Your task to perform on an android device: Open calendar and show me the second week of next month Image 0: 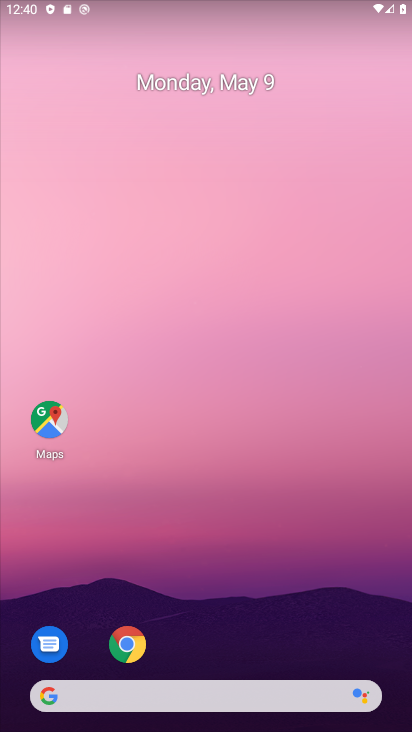
Step 0: drag from (332, 593) to (210, 30)
Your task to perform on an android device: Open calendar and show me the second week of next month Image 1: 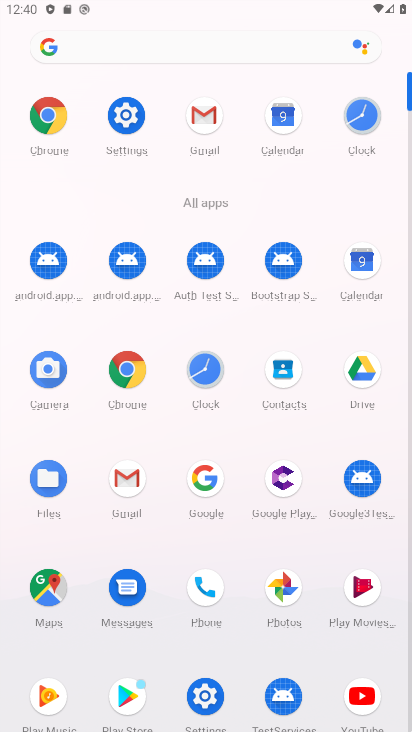
Step 1: drag from (161, 589) to (187, 216)
Your task to perform on an android device: Open calendar and show me the second week of next month Image 2: 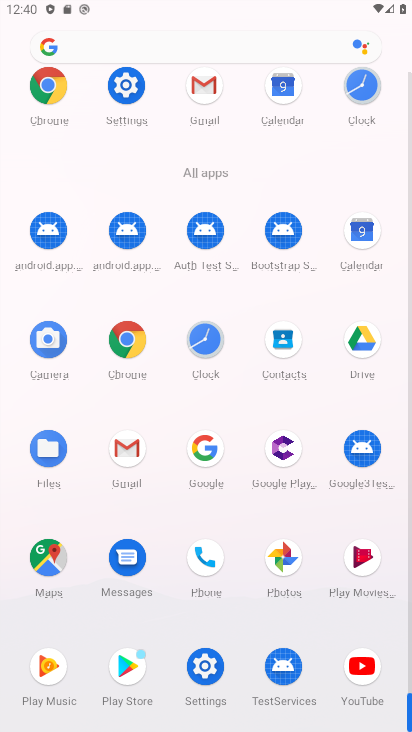
Step 2: click (350, 270)
Your task to perform on an android device: Open calendar and show me the second week of next month Image 3: 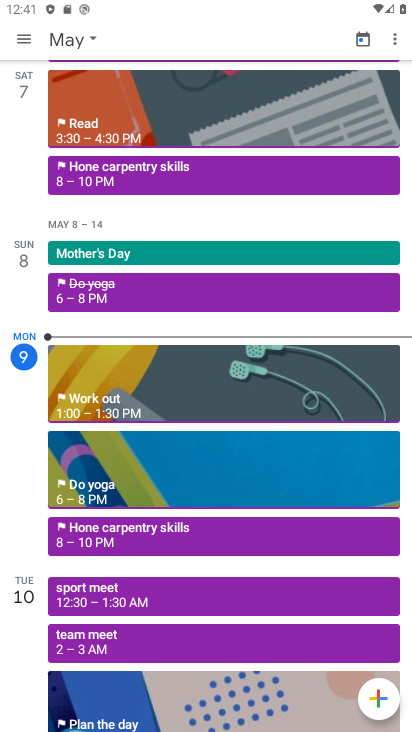
Step 3: click (21, 45)
Your task to perform on an android device: Open calendar and show me the second week of next month Image 4: 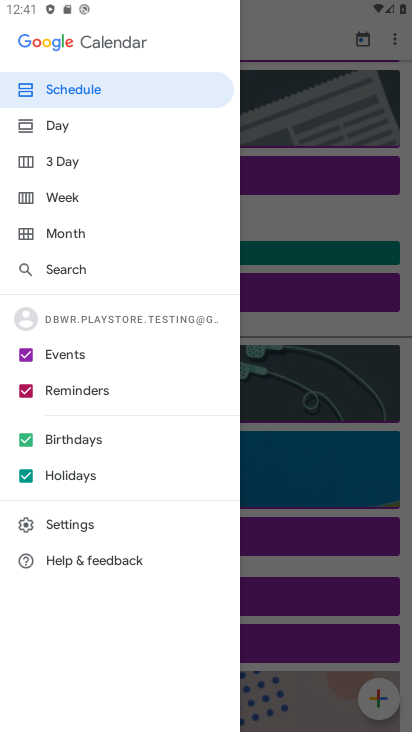
Step 4: click (60, 206)
Your task to perform on an android device: Open calendar and show me the second week of next month Image 5: 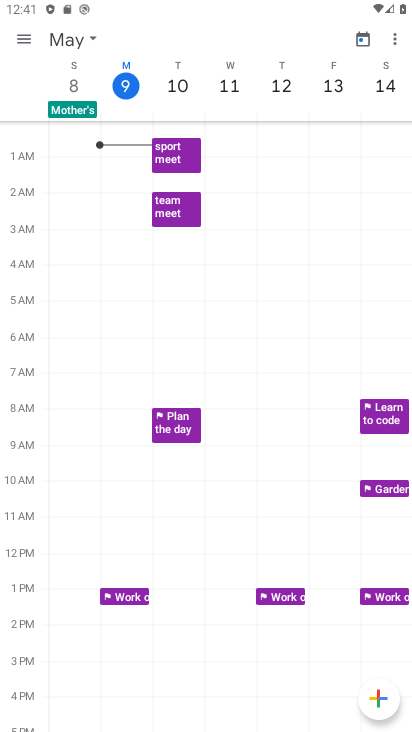
Step 5: click (64, 37)
Your task to perform on an android device: Open calendar and show me the second week of next month Image 6: 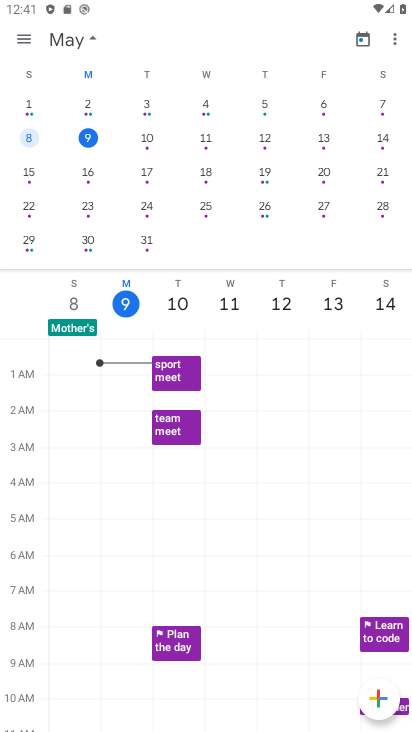
Step 6: drag from (323, 177) to (47, 158)
Your task to perform on an android device: Open calendar and show me the second week of next month Image 7: 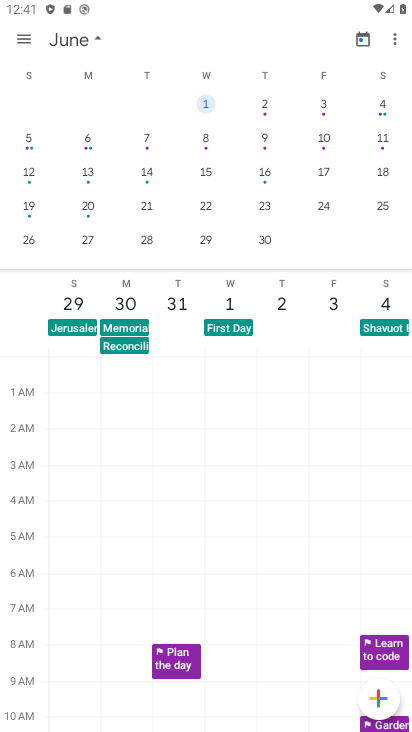
Step 7: click (33, 176)
Your task to perform on an android device: Open calendar and show me the second week of next month Image 8: 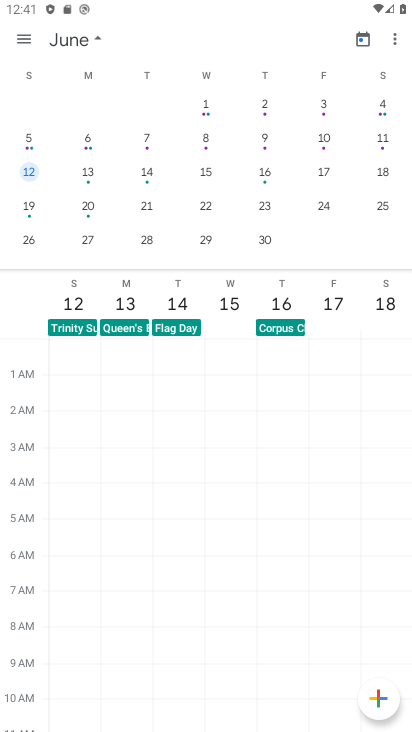
Step 8: task complete